Your task to perform on an android device: Go to Google maps Image 0: 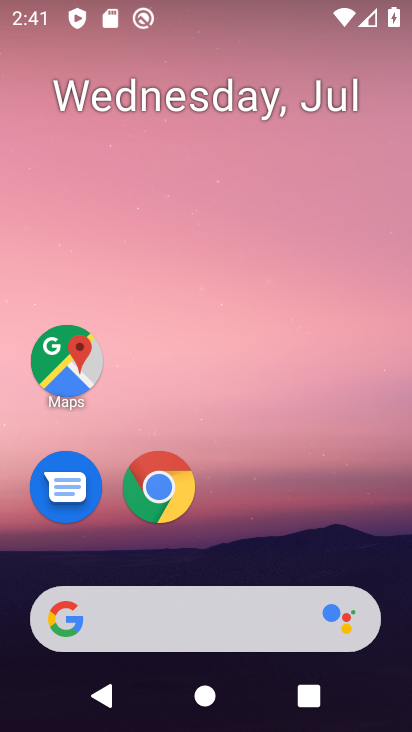
Step 0: drag from (395, 558) to (302, 115)
Your task to perform on an android device: Go to Google maps Image 1: 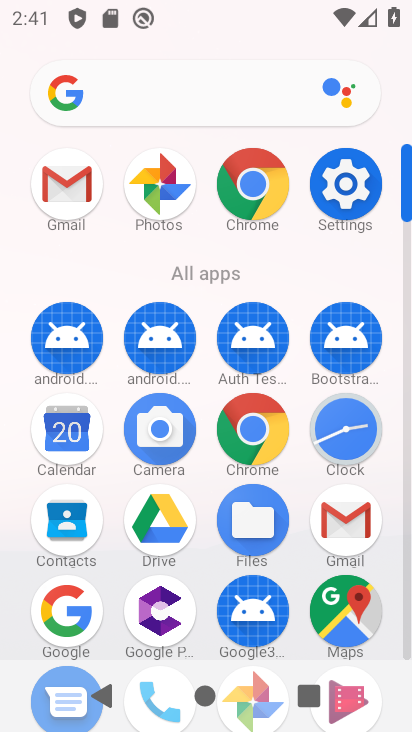
Step 1: click (344, 613)
Your task to perform on an android device: Go to Google maps Image 2: 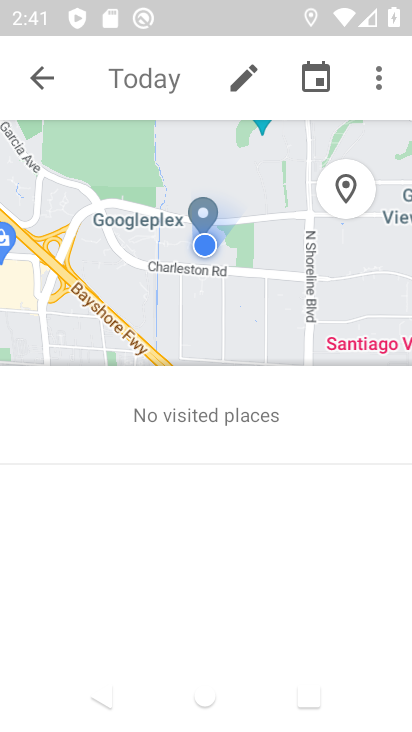
Step 2: task complete